Your task to perform on an android device: Toggle the flashlight Image 0: 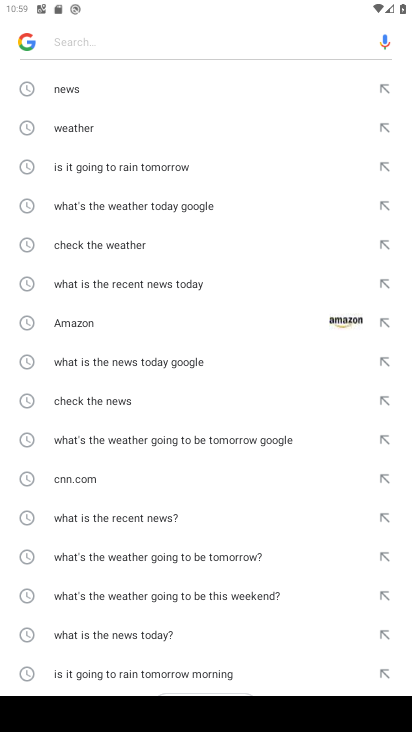
Step 0: press home button
Your task to perform on an android device: Toggle the flashlight Image 1: 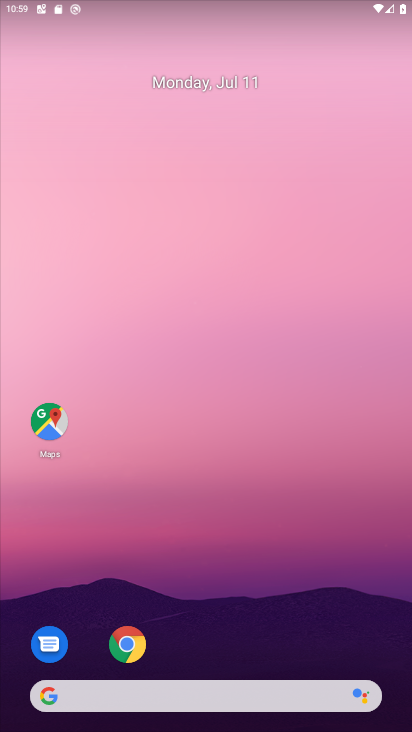
Step 1: drag from (238, 610) to (282, 124)
Your task to perform on an android device: Toggle the flashlight Image 2: 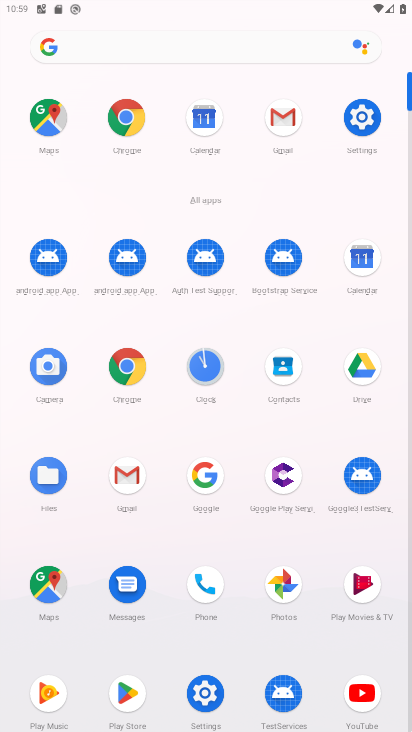
Step 2: click (356, 116)
Your task to perform on an android device: Toggle the flashlight Image 3: 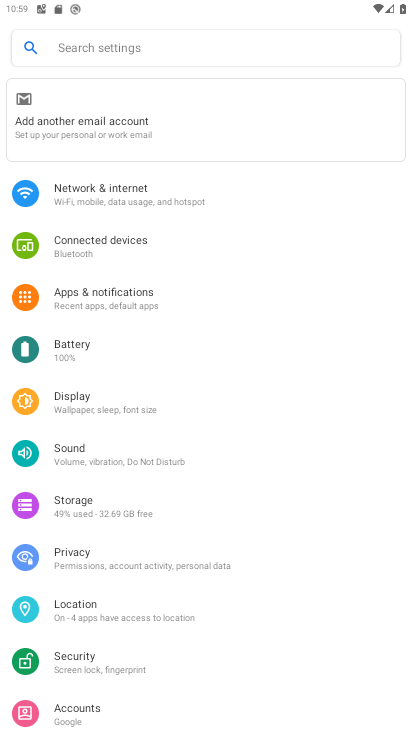
Step 3: task complete